Your task to perform on an android device: What's on my calendar today? Image 0: 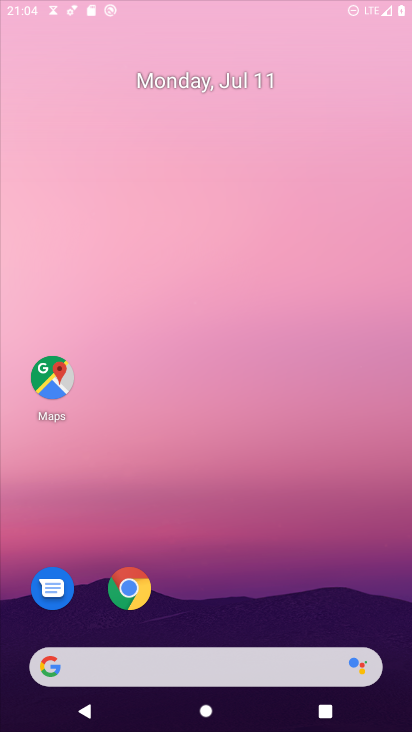
Step 0: press home button
Your task to perform on an android device: What's on my calendar today? Image 1: 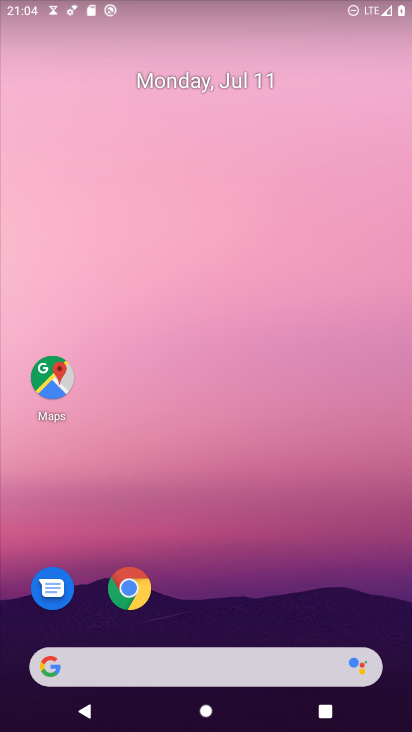
Step 1: drag from (282, 632) to (219, 5)
Your task to perform on an android device: What's on my calendar today? Image 2: 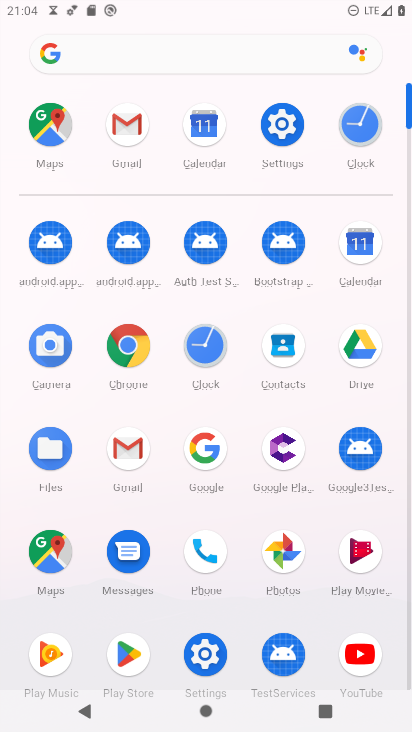
Step 2: click (367, 252)
Your task to perform on an android device: What's on my calendar today? Image 3: 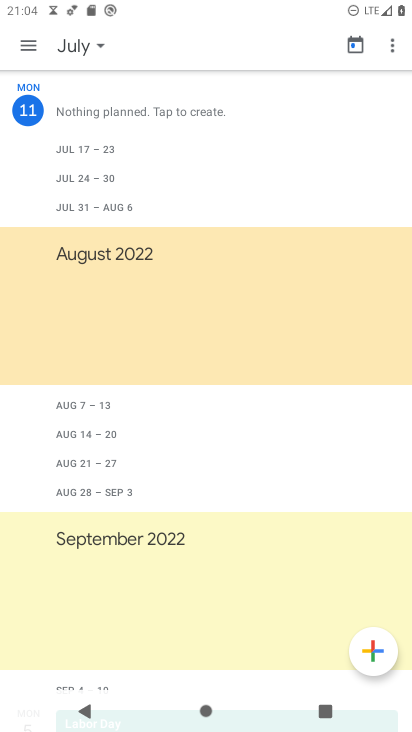
Step 3: task complete